Your task to perform on an android device: change the upload size in google photos Image 0: 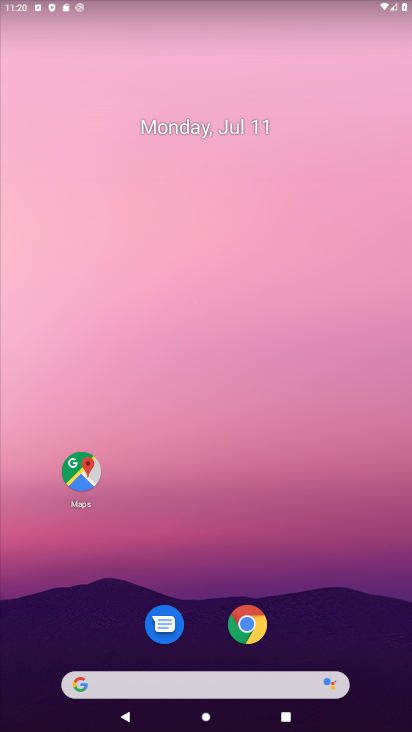
Step 0: drag from (203, 597) to (133, 4)
Your task to perform on an android device: change the upload size in google photos Image 1: 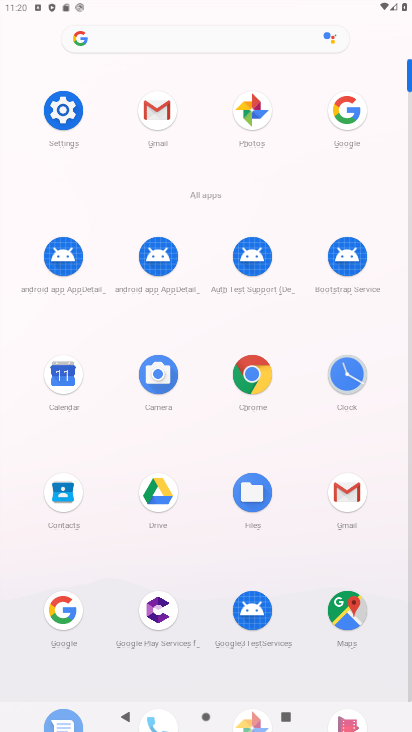
Step 1: click (255, 159)
Your task to perform on an android device: change the upload size in google photos Image 2: 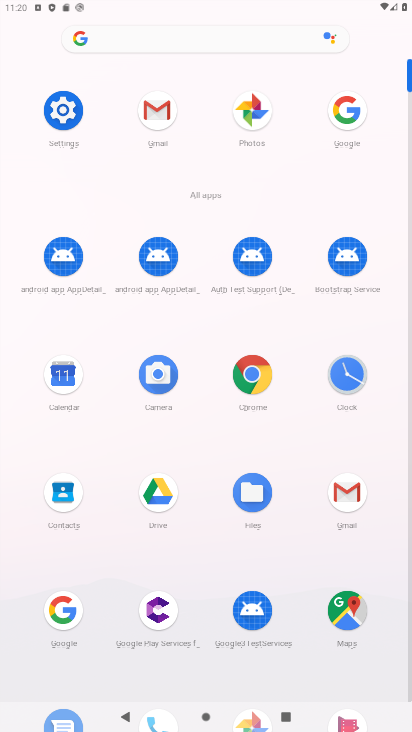
Step 2: click (236, 116)
Your task to perform on an android device: change the upload size in google photos Image 3: 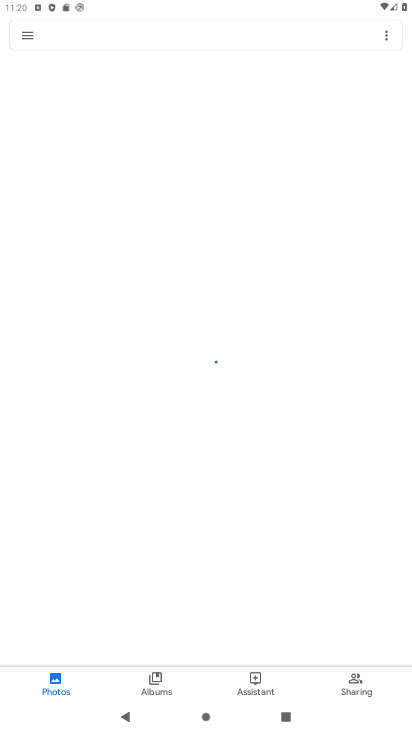
Step 3: click (31, 45)
Your task to perform on an android device: change the upload size in google photos Image 4: 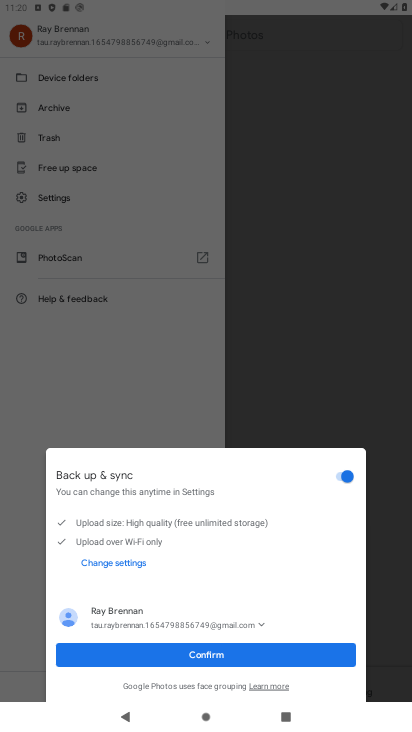
Step 4: click (167, 659)
Your task to perform on an android device: change the upload size in google photos Image 5: 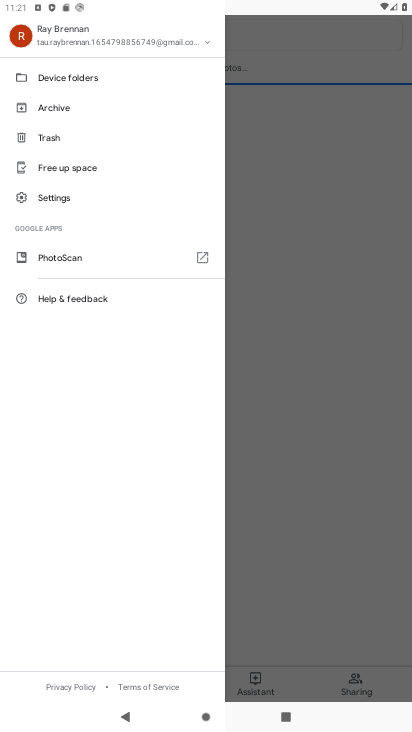
Step 5: click (52, 196)
Your task to perform on an android device: change the upload size in google photos Image 6: 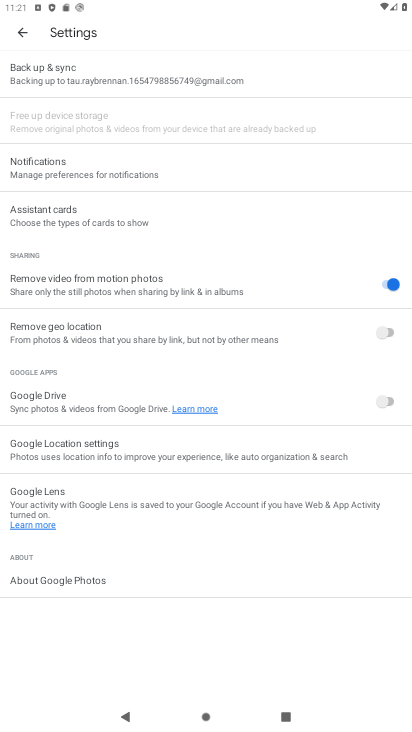
Step 6: click (63, 87)
Your task to perform on an android device: change the upload size in google photos Image 7: 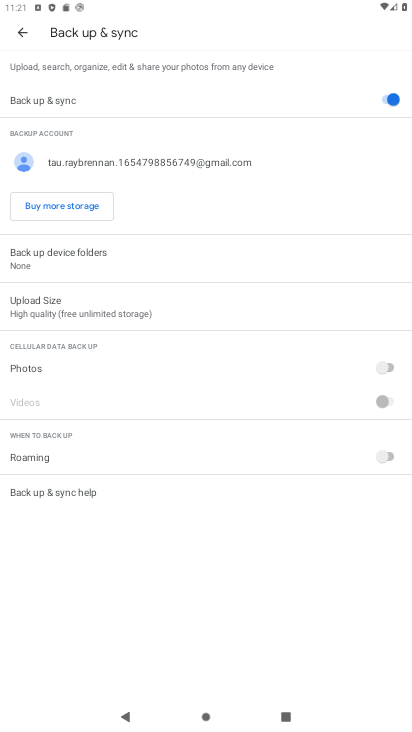
Step 7: click (104, 310)
Your task to perform on an android device: change the upload size in google photos Image 8: 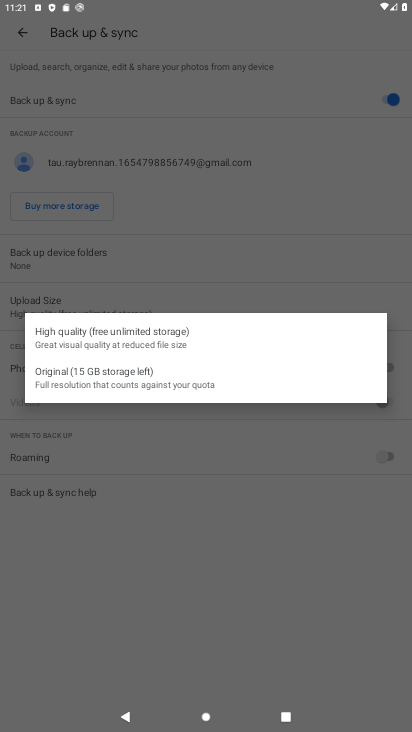
Step 8: click (88, 373)
Your task to perform on an android device: change the upload size in google photos Image 9: 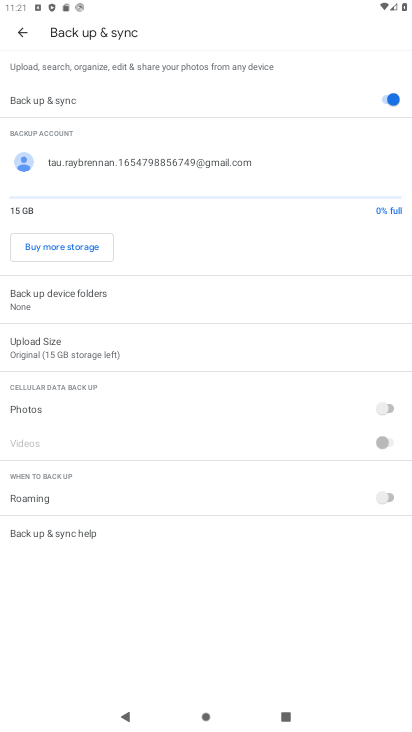
Step 9: task complete